Your task to perform on an android device: turn on improve location accuracy Image 0: 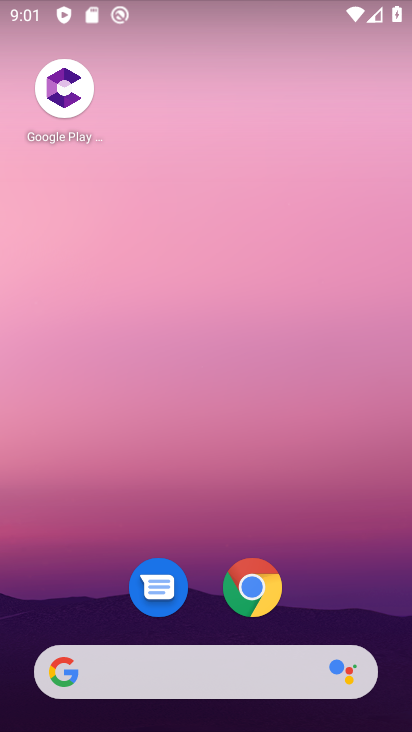
Step 0: drag from (211, 496) to (214, 8)
Your task to perform on an android device: turn on improve location accuracy Image 1: 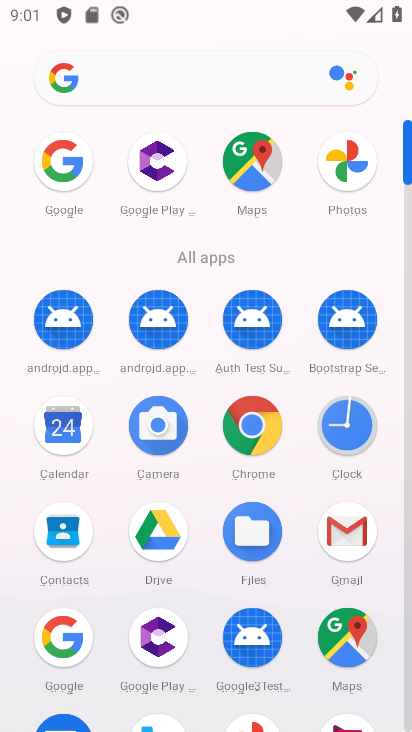
Step 1: drag from (126, 585) to (114, 401)
Your task to perform on an android device: turn on improve location accuracy Image 2: 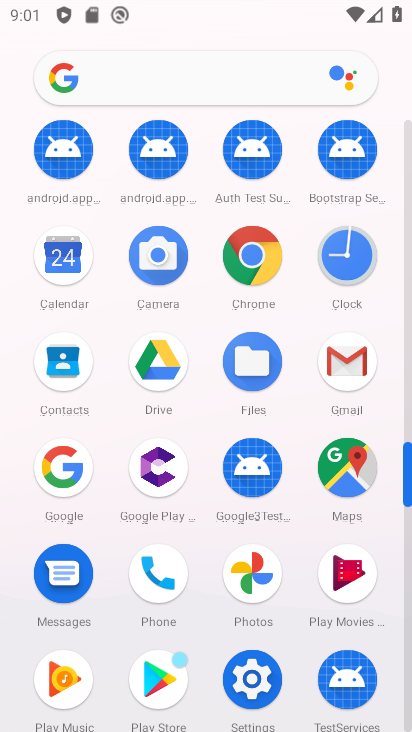
Step 2: click (252, 680)
Your task to perform on an android device: turn on improve location accuracy Image 3: 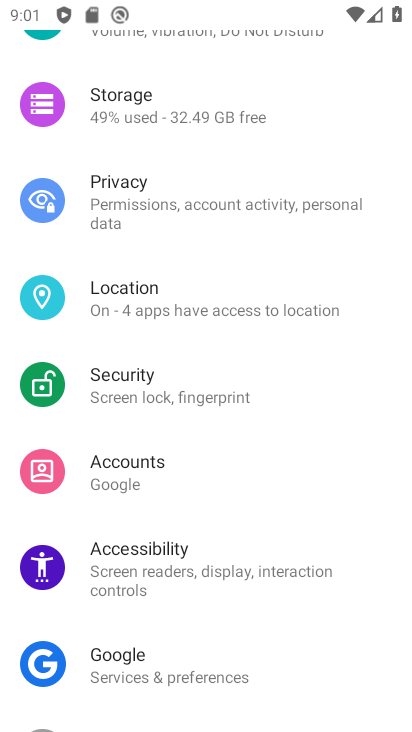
Step 3: click (201, 317)
Your task to perform on an android device: turn on improve location accuracy Image 4: 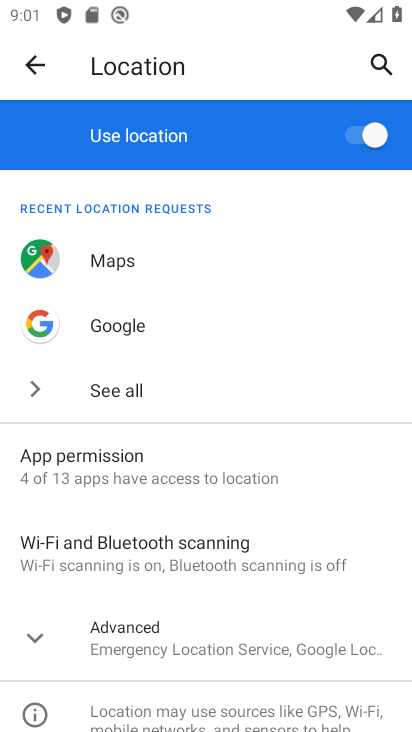
Step 4: click (149, 643)
Your task to perform on an android device: turn on improve location accuracy Image 5: 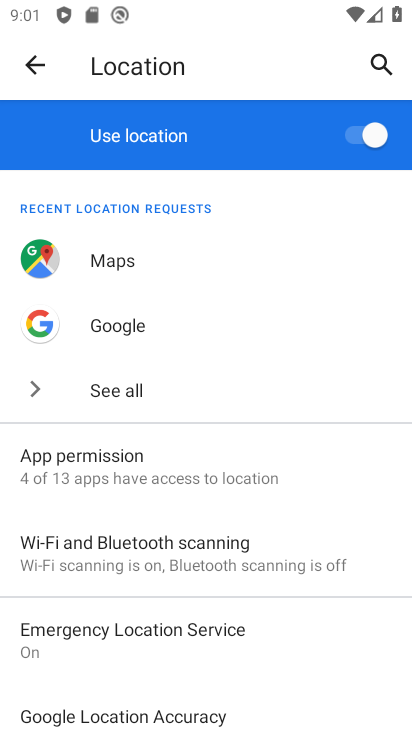
Step 5: drag from (189, 669) to (265, 480)
Your task to perform on an android device: turn on improve location accuracy Image 6: 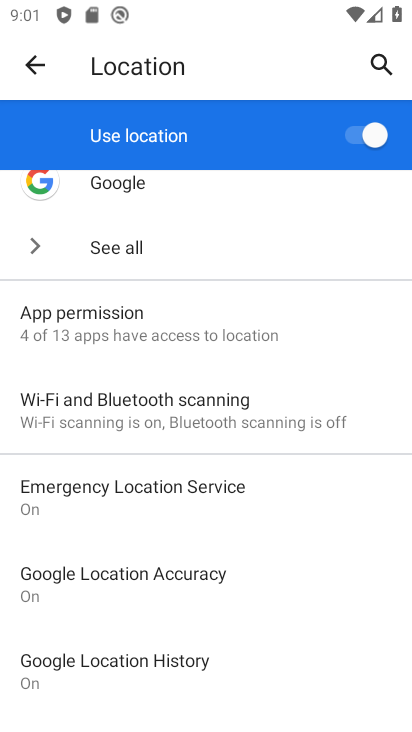
Step 6: click (195, 579)
Your task to perform on an android device: turn on improve location accuracy Image 7: 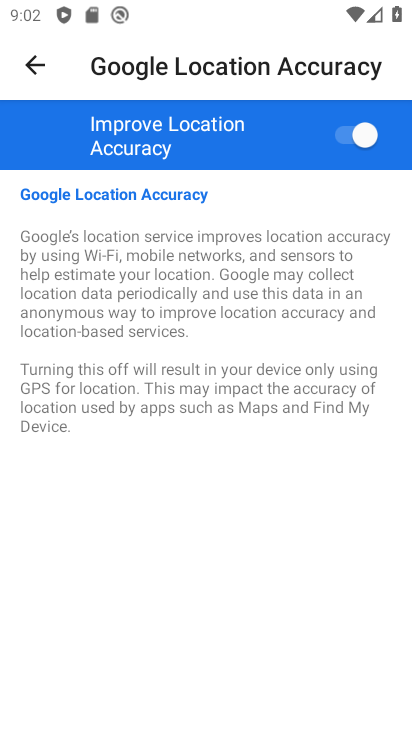
Step 7: task complete